Your task to perform on an android device: What's the weather? Image 0: 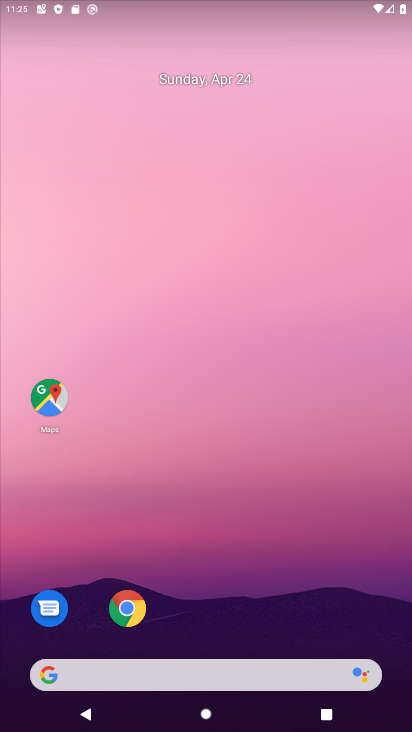
Step 0: drag from (240, 722) to (242, 136)
Your task to perform on an android device: What's the weather? Image 1: 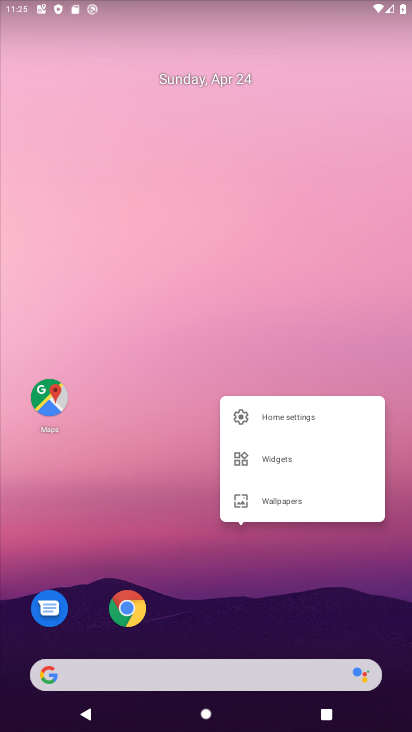
Step 1: click (228, 248)
Your task to perform on an android device: What's the weather? Image 2: 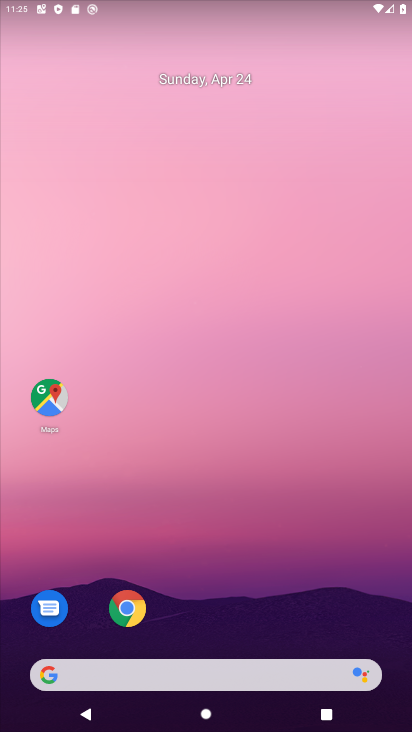
Step 2: drag from (222, 723) to (196, 101)
Your task to perform on an android device: What's the weather? Image 3: 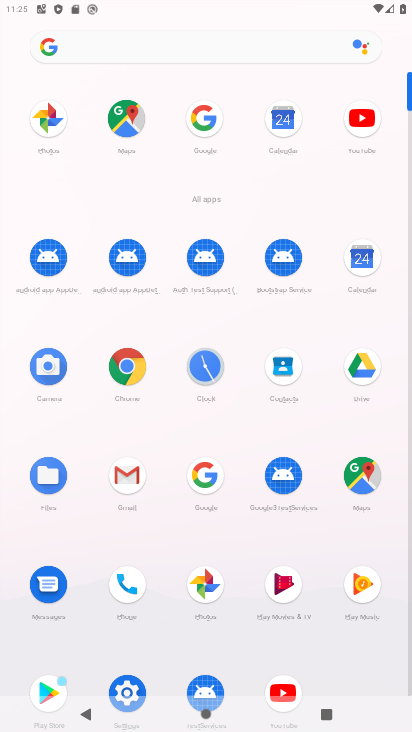
Step 3: click (202, 473)
Your task to perform on an android device: What's the weather? Image 4: 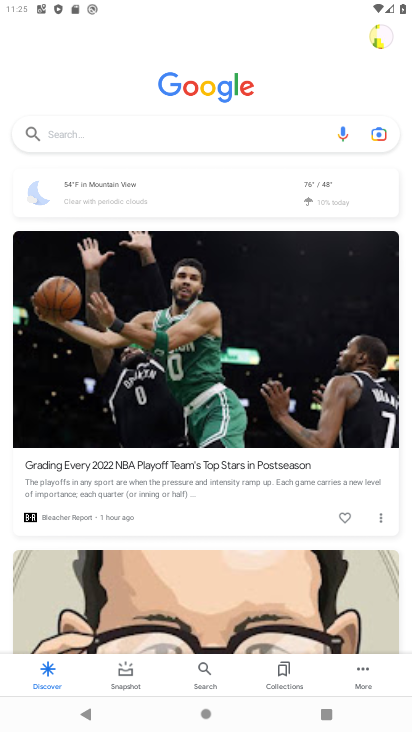
Step 4: click (116, 183)
Your task to perform on an android device: What's the weather? Image 5: 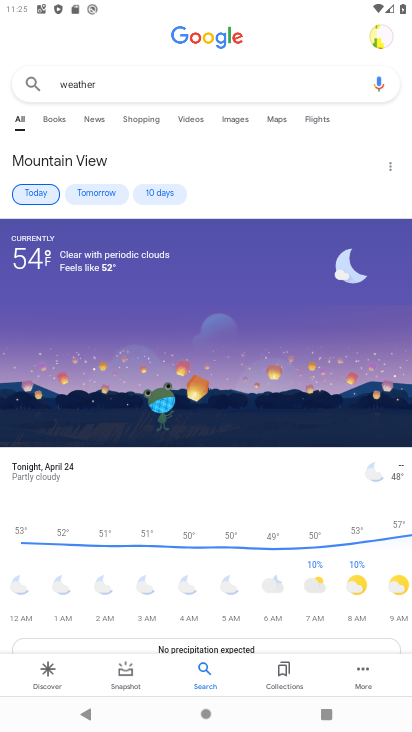
Step 5: task complete